Your task to perform on an android device: toggle improve location accuracy Image 0: 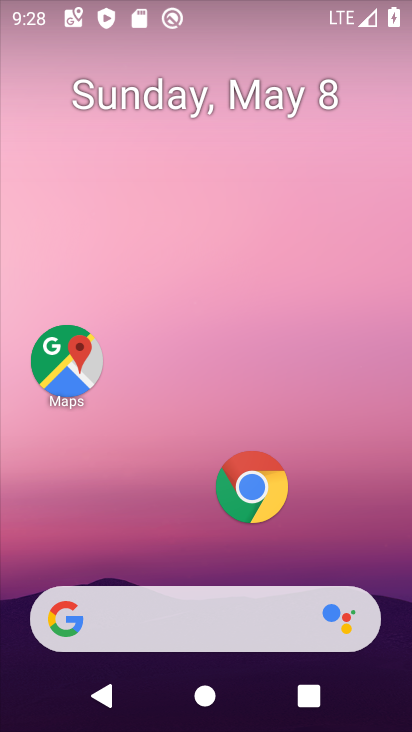
Step 0: drag from (134, 518) to (152, 0)
Your task to perform on an android device: toggle improve location accuracy Image 1: 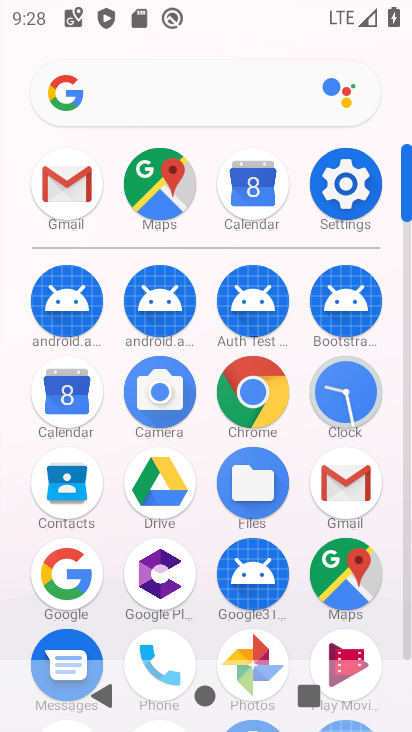
Step 1: click (340, 212)
Your task to perform on an android device: toggle improve location accuracy Image 2: 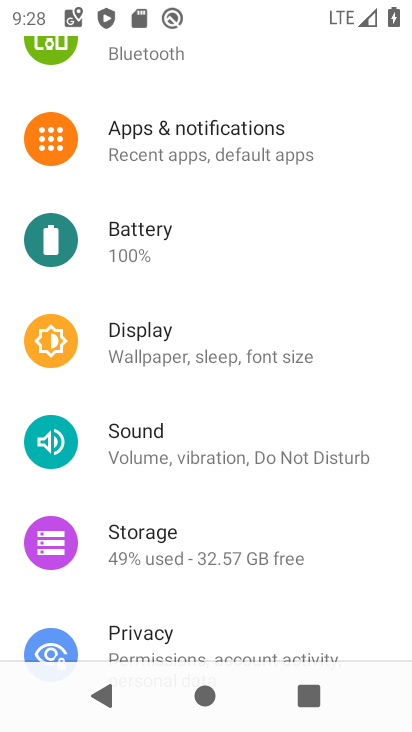
Step 2: drag from (235, 597) to (218, 128)
Your task to perform on an android device: toggle improve location accuracy Image 3: 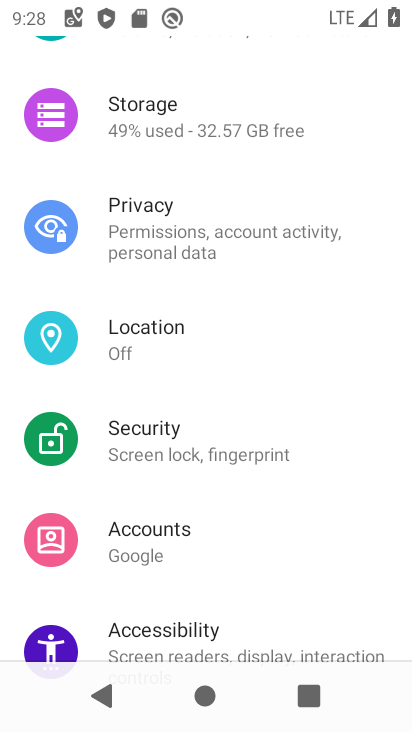
Step 3: click (203, 327)
Your task to perform on an android device: toggle improve location accuracy Image 4: 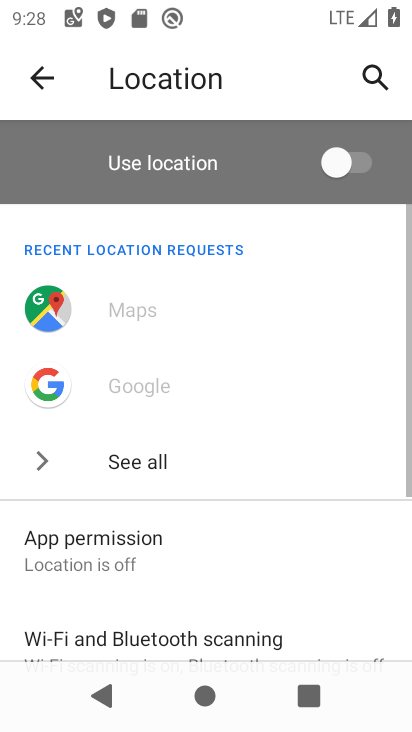
Step 4: drag from (191, 542) to (198, 279)
Your task to perform on an android device: toggle improve location accuracy Image 5: 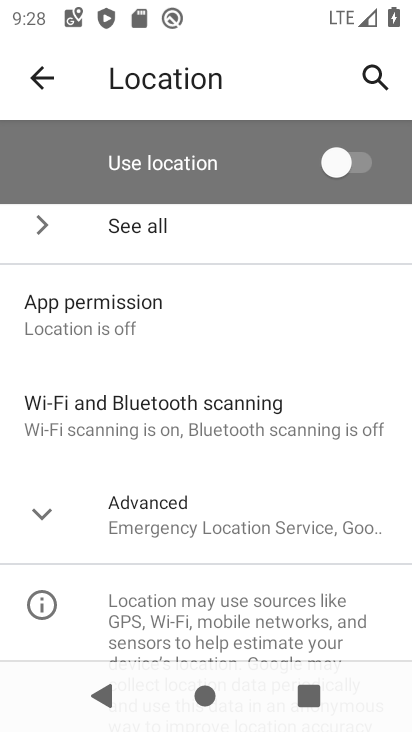
Step 5: click (37, 512)
Your task to perform on an android device: toggle improve location accuracy Image 6: 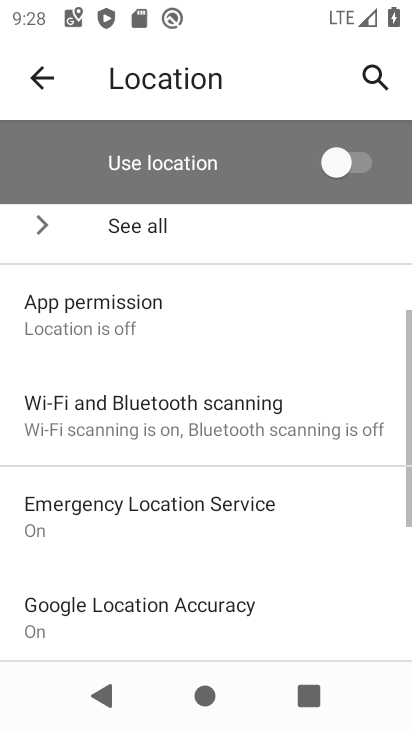
Step 6: drag from (209, 614) to (256, 295)
Your task to perform on an android device: toggle improve location accuracy Image 7: 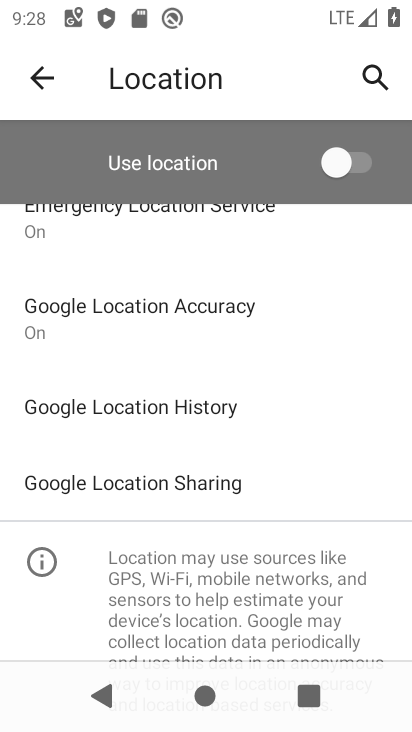
Step 7: click (206, 320)
Your task to perform on an android device: toggle improve location accuracy Image 8: 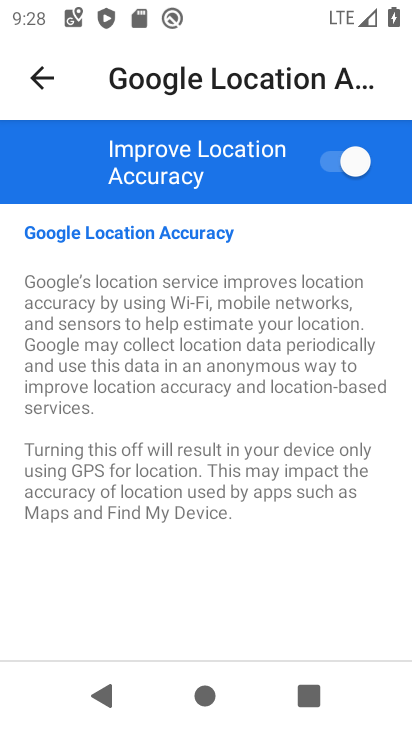
Step 8: click (333, 143)
Your task to perform on an android device: toggle improve location accuracy Image 9: 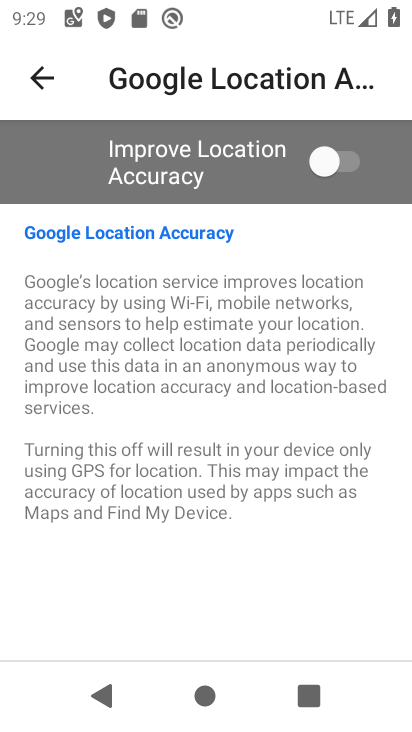
Step 9: task complete